Your task to perform on an android device: change the clock display to analog Image 0: 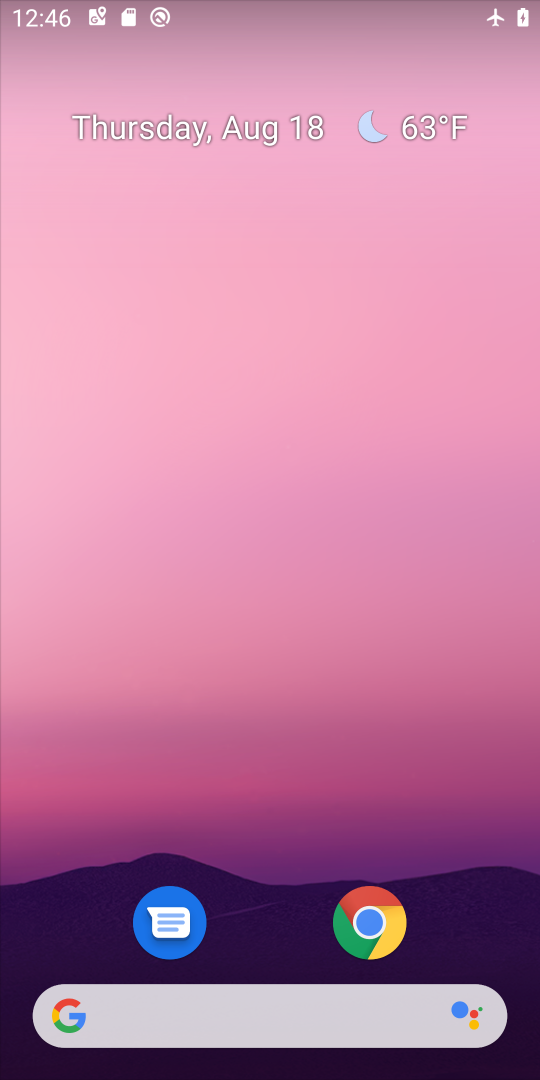
Step 0: drag from (279, 933) to (266, 471)
Your task to perform on an android device: change the clock display to analog Image 1: 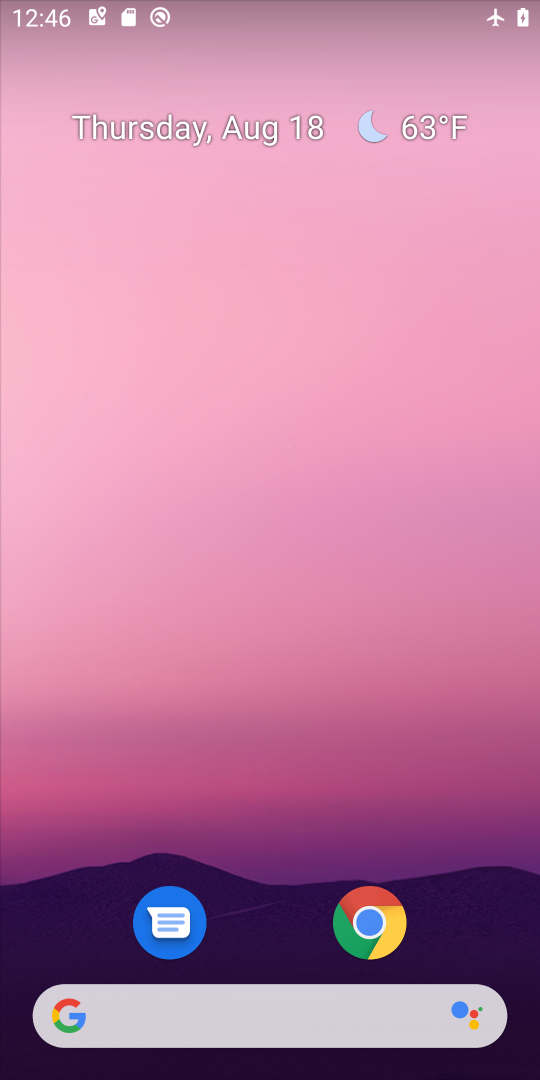
Step 1: drag from (269, 916) to (269, 277)
Your task to perform on an android device: change the clock display to analog Image 2: 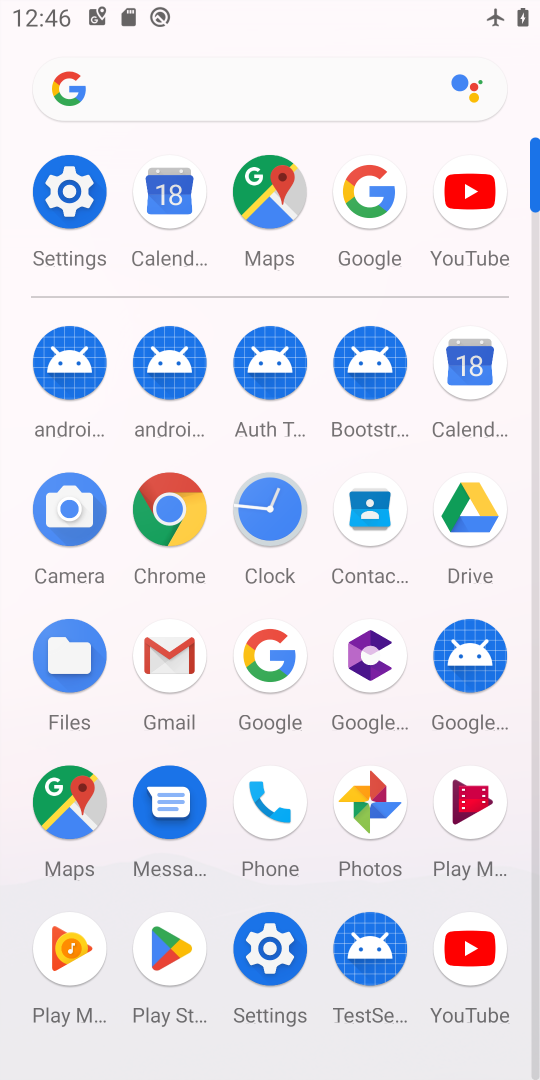
Step 2: click (268, 508)
Your task to perform on an android device: change the clock display to analog Image 3: 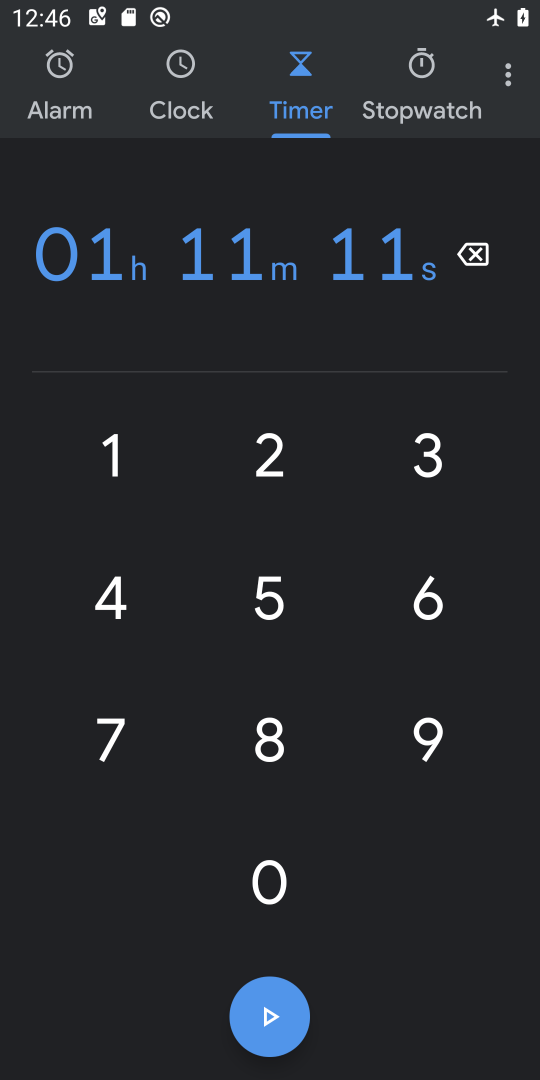
Step 3: click (501, 75)
Your task to perform on an android device: change the clock display to analog Image 4: 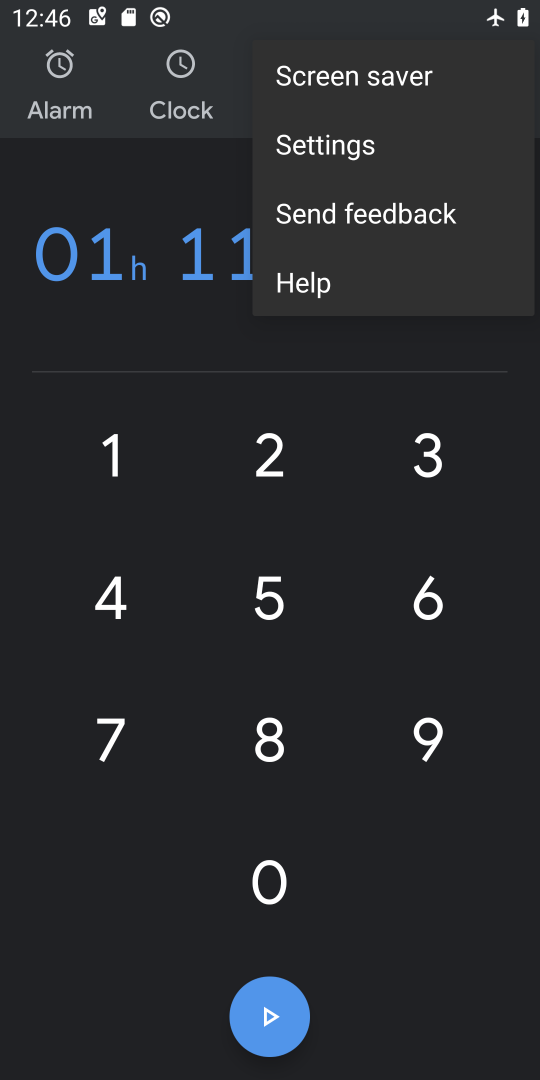
Step 4: click (352, 145)
Your task to perform on an android device: change the clock display to analog Image 5: 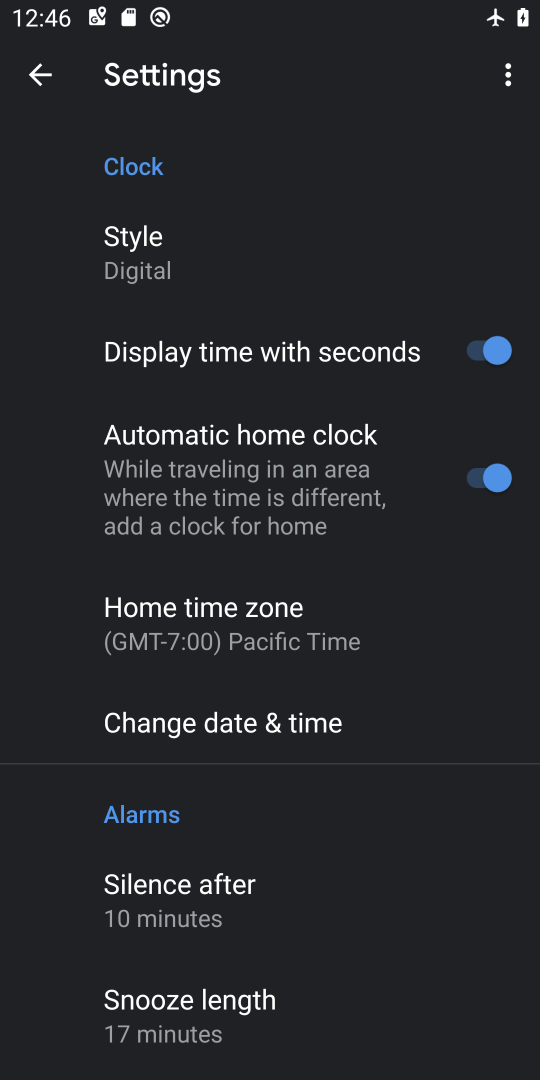
Step 5: click (136, 240)
Your task to perform on an android device: change the clock display to analog Image 6: 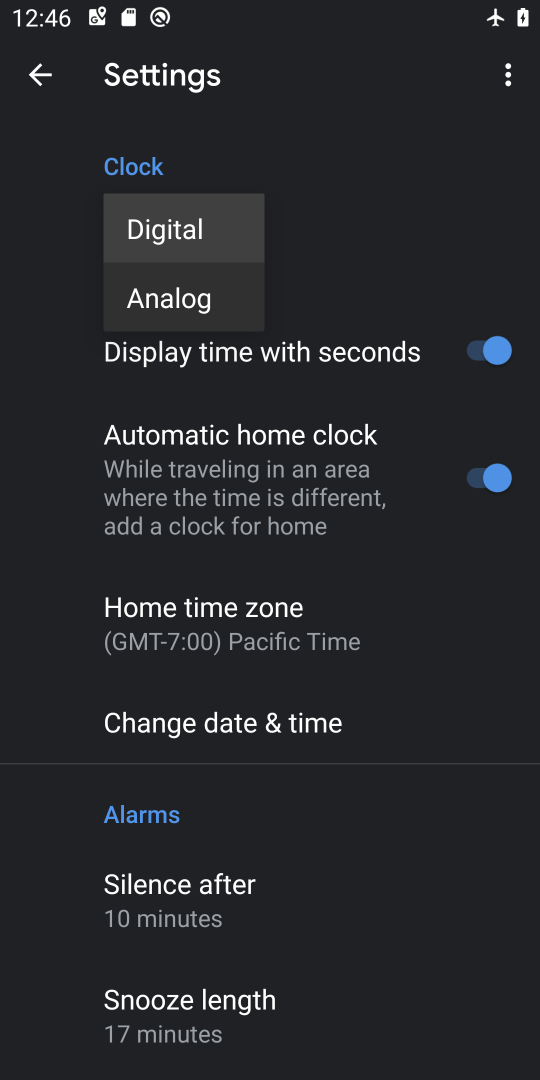
Step 6: click (154, 296)
Your task to perform on an android device: change the clock display to analog Image 7: 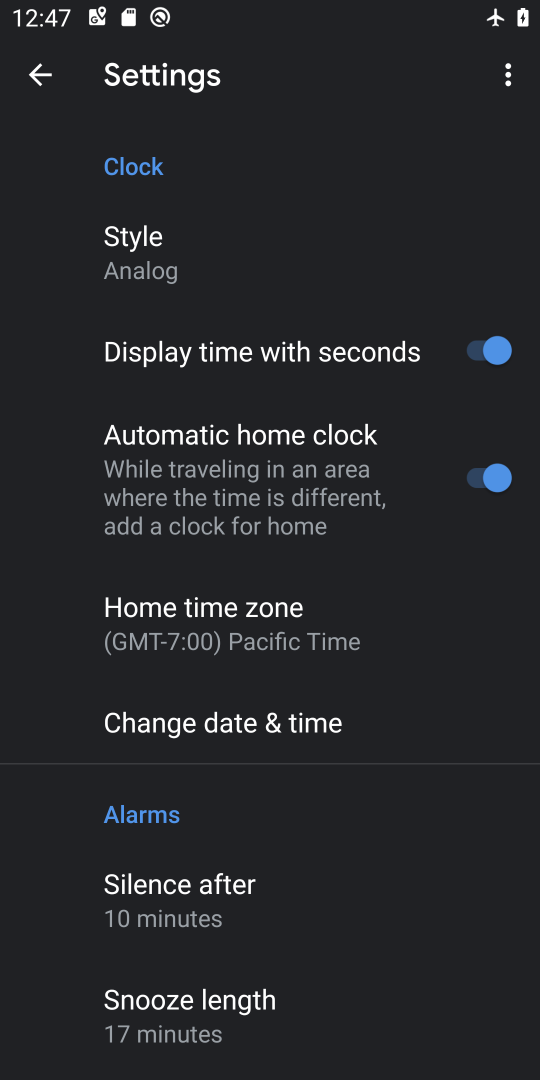
Step 7: task complete